Your task to perform on an android device: install app "DoorDash - Dasher" Image 0: 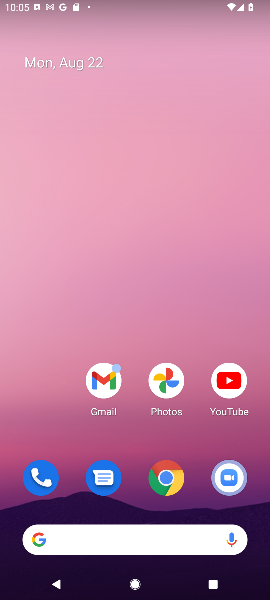
Step 0: drag from (186, 500) to (202, 127)
Your task to perform on an android device: install app "DoorDash - Dasher" Image 1: 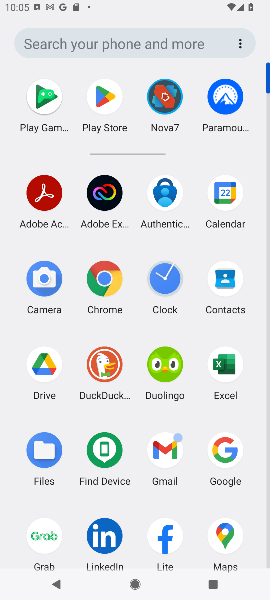
Step 1: click (99, 101)
Your task to perform on an android device: install app "DoorDash - Dasher" Image 2: 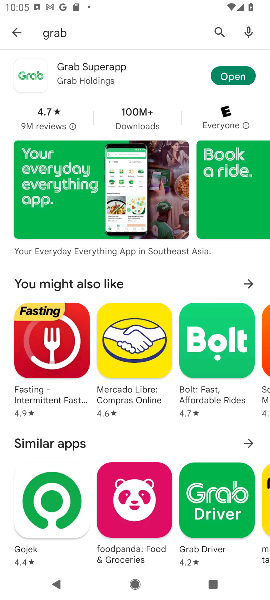
Step 2: click (224, 38)
Your task to perform on an android device: install app "DoorDash - Dasher" Image 3: 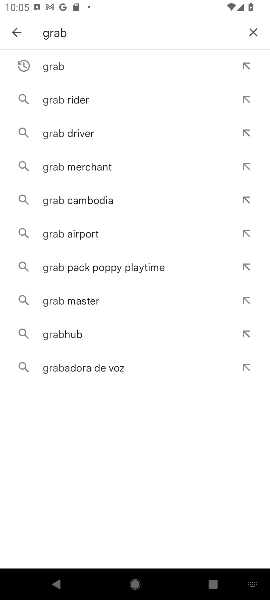
Step 3: click (249, 36)
Your task to perform on an android device: install app "DoorDash - Dasher" Image 4: 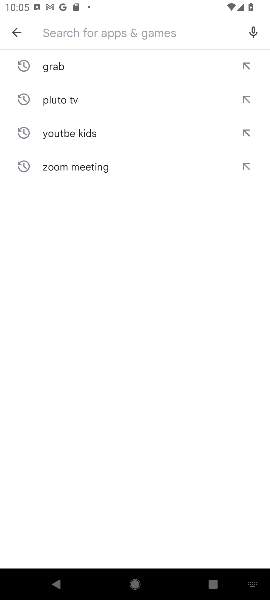
Step 4: type "door dash"
Your task to perform on an android device: install app "DoorDash - Dasher" Image 5: 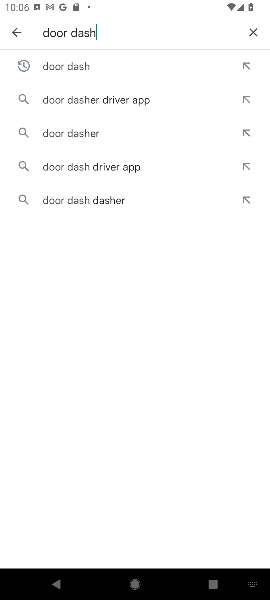
Step 5: click (122, 56)
Your task to perform on an android device: install app "DoorDash - Dasher" Image 6: 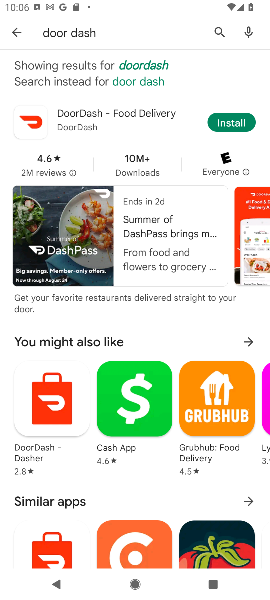
Step 6: click (235, 125)
Your task to perform on an android device: install app "DoorDash - Dasher" Image 7: 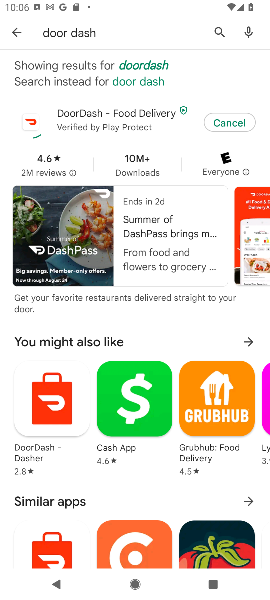
Step 7: task complete